Your task to perform on an android device: set the stopwatch Image 0: 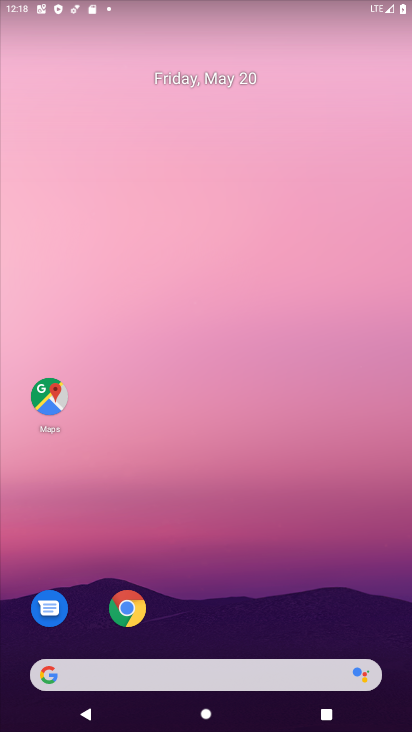
Step 0: drag from (353, 600) to (316, 134)
Your task to perform on an android device: set the stopwatch Image 1: 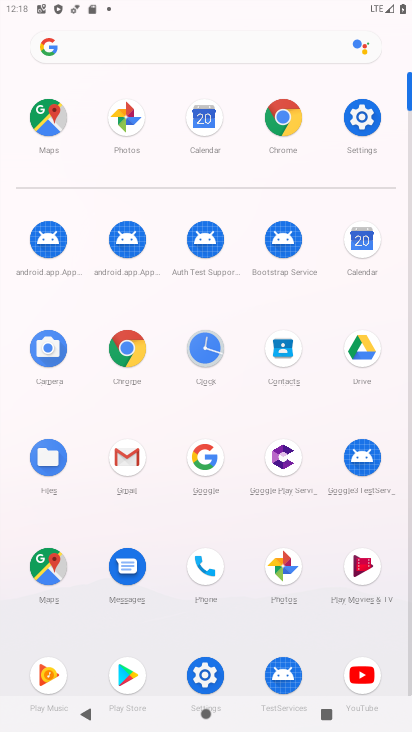
Step 1: click (194, 358)
Your task to perform on an android device: set the stopwatch Image 2: 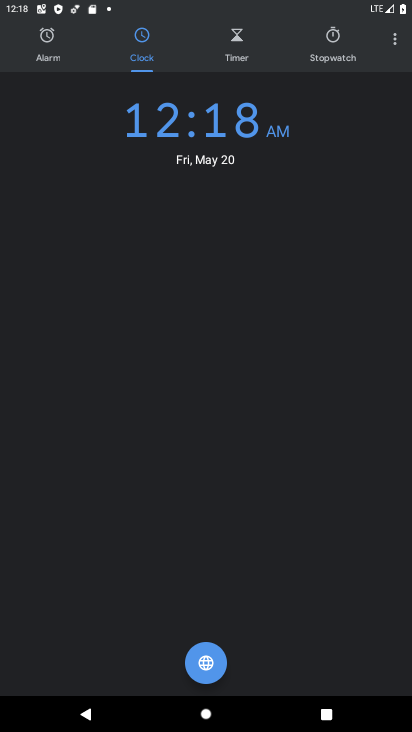
Step 2: click (344, 59)
Your task to perform on an android device: set the stopwatch Image 3: 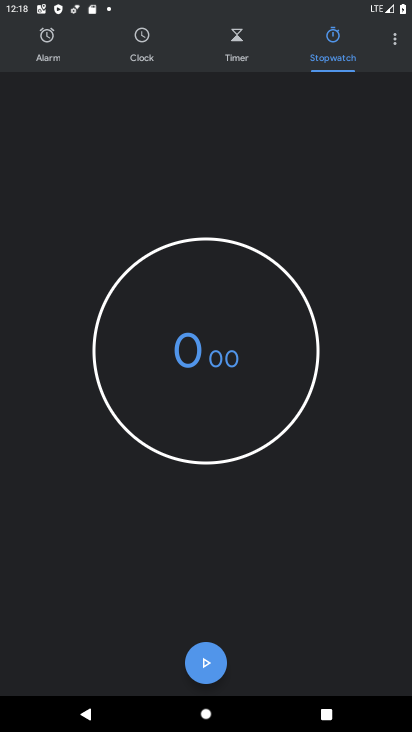
Step 3: click (207, 656)
Your task to perform on an android device: set the stopwatch Image 4: 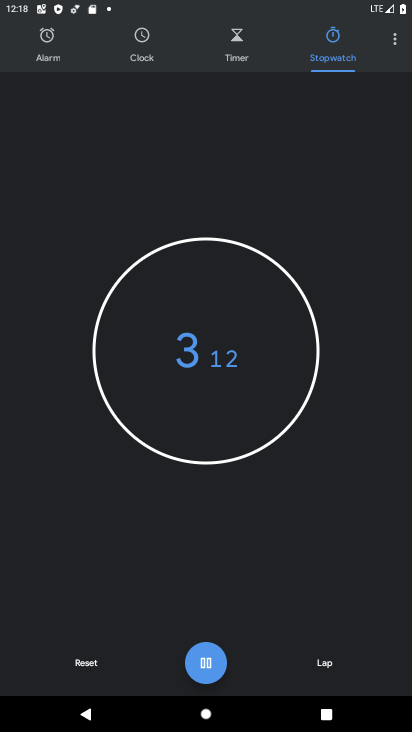
Step 4: click (209, 658)
Your task to perform on an android device: set the stopwatch Image 5: 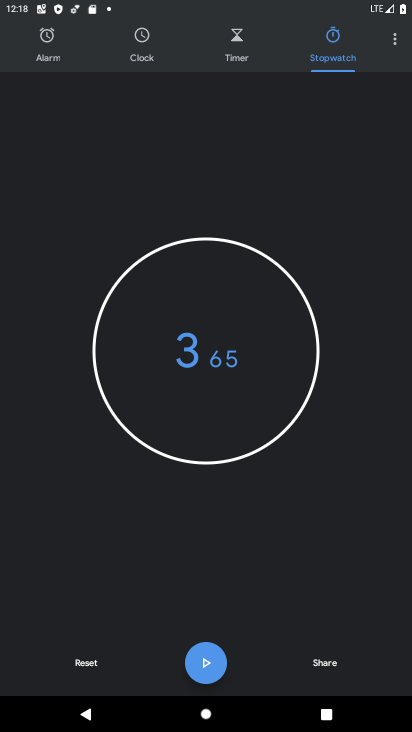
Step 5: task complete